Your task to perform on an android device: Show me popular videos on Youtube Image 0: 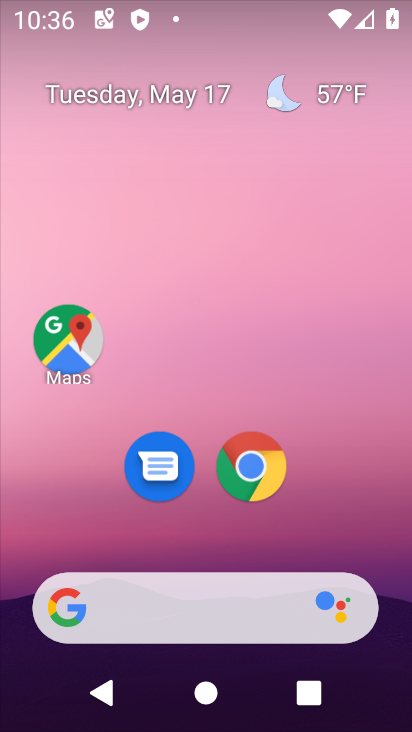
Step 0: press home button
Your task to perform on an android device: Show me popular videos on Youtube Image 1: 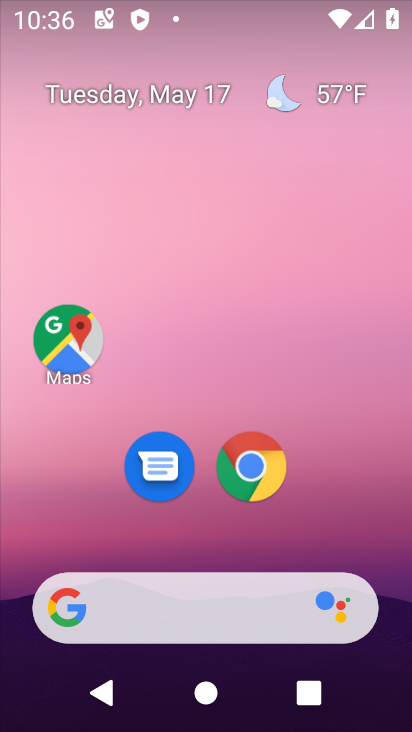
Step 1: drag from (302, 644) to (262, 211)
Your task to perform on an android device: Show me popular videos on Youtube Image 2: 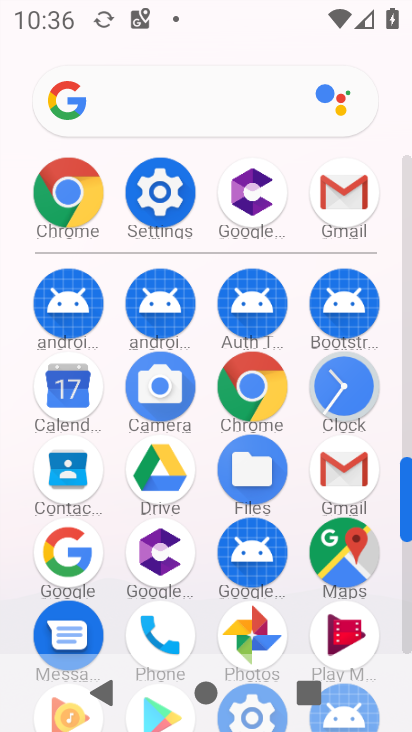
Step 2: drag from (212, 500) to (207, 245)
Your task to perform on an android device: Show me popular videos on Youtube Image 3: 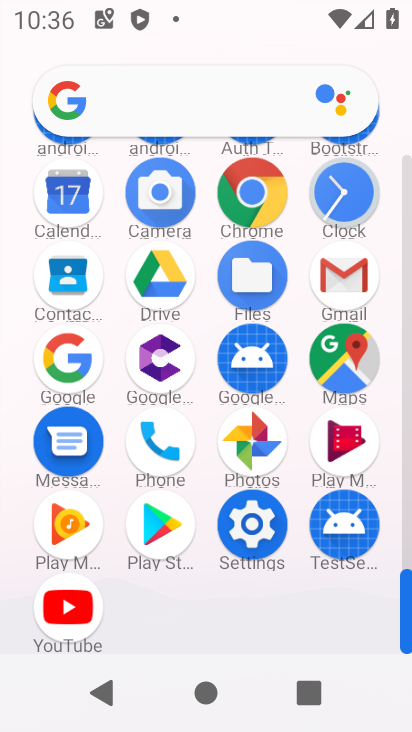
Step 3: click (68, 601)
Your task to perform on an android device: Show me popular videos on Youtube Image 4: 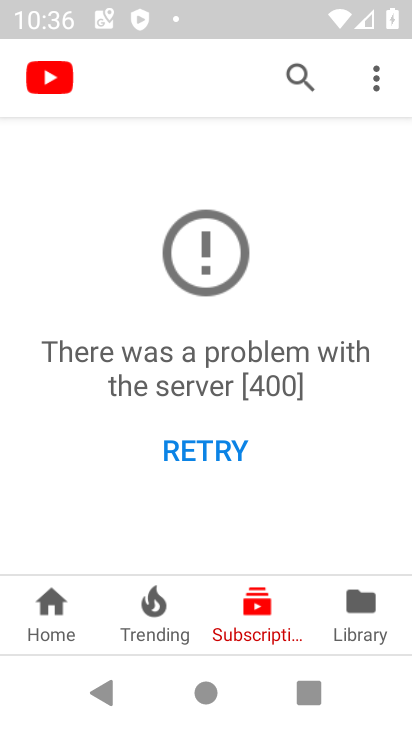
Step 4: click (301, 81)
Your task to perform on an android device: Show me popular videos on Youtube Image 5: 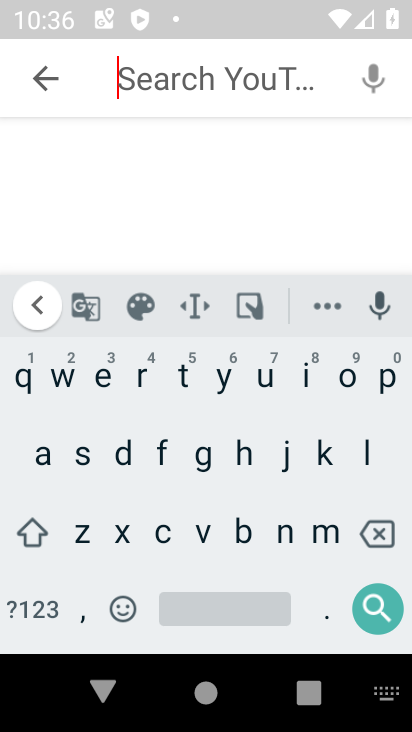
Step 5: click (387, 379)
Your task to perform on an android device: Show me popular videos on Youtube Image 6: 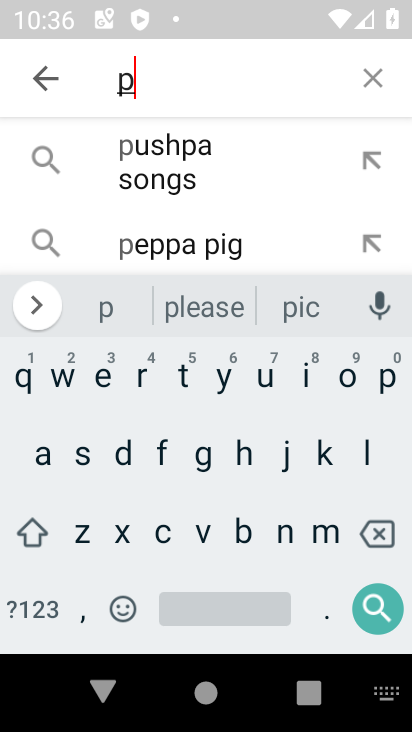
Step 6: click (340, 382)
Your task to perform on an android device: Show me popular videos on Youtube Image 7: 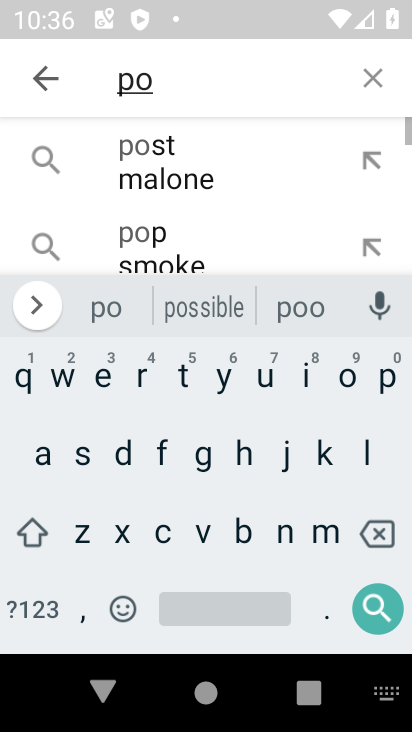
Step 7: click (398, 392)
Your task to perform on an android device: Show me popular videos on Youtube Image 8: 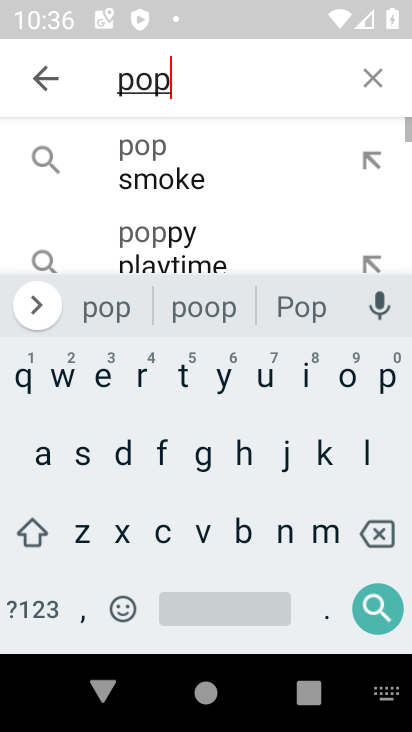
Step 8: click (267, 375)
Your task to perform on an android device: Show me popular videos on Youtube Image 9: 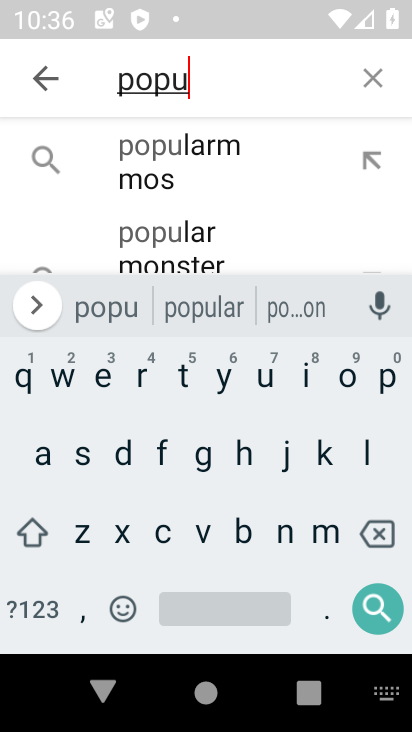
Step 9: click (194, 315)
Your task to perform on an android device: Show me popular videos on Youtube Image 10: 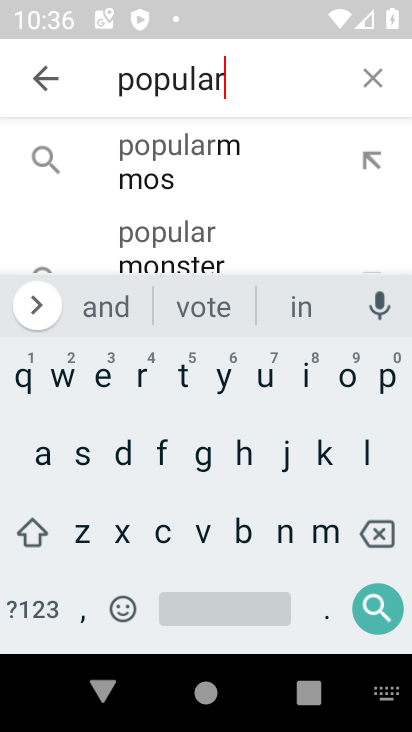
Step 10: click (193, 523)
Your task to perform on an android device: Show me popular videos on Youtube Image 11: 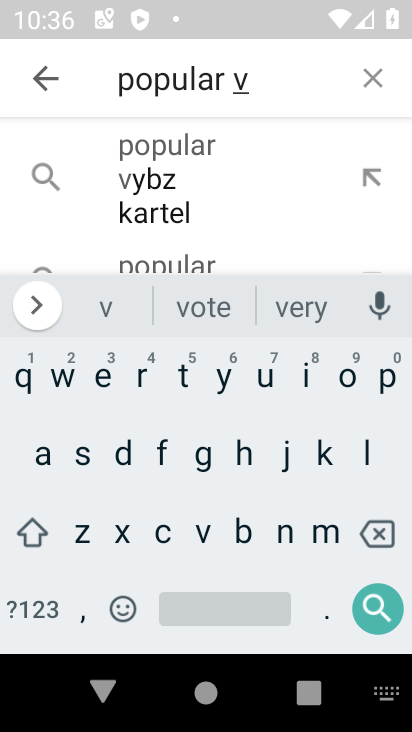
Step 11: click (300, 383)
Your task to perform on an android device: Show me popular videos on Youtube Image 12: 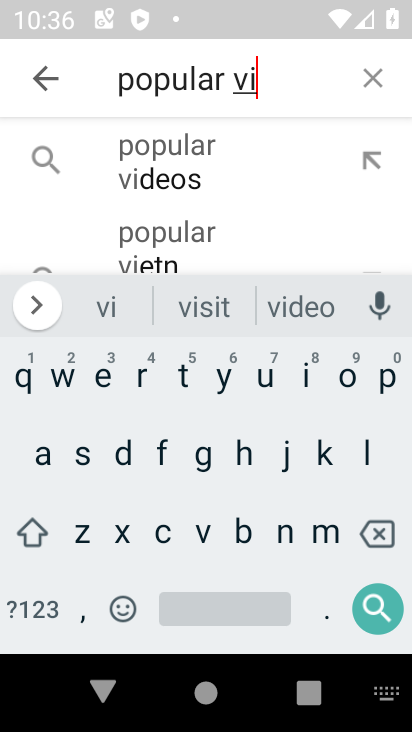
Step 12: click (186, 162)
Your task to perform on an android device: Show me popular videos on Youtube Image 13: 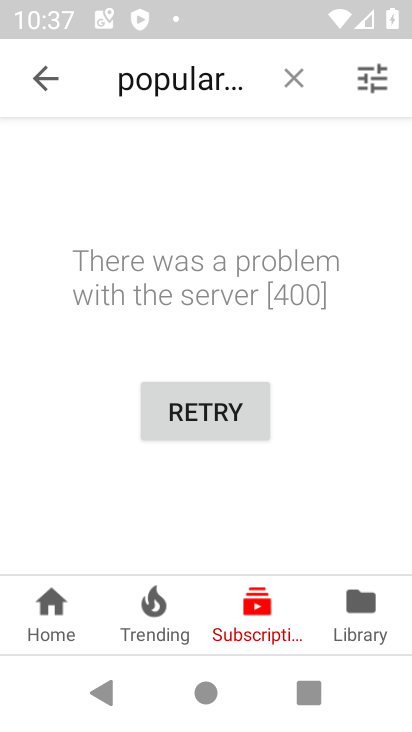
Step 13: task complete